Your task to perform on an android device: toggle wifi Image 0: 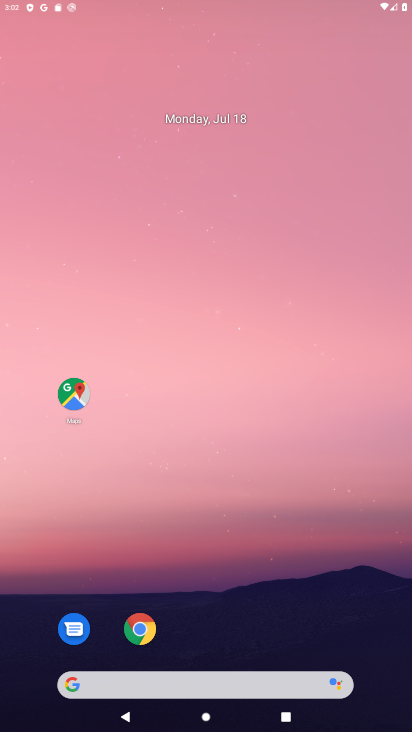
Step 0: press home button
Your task to perform on an android device: toggle wifi Image 1: 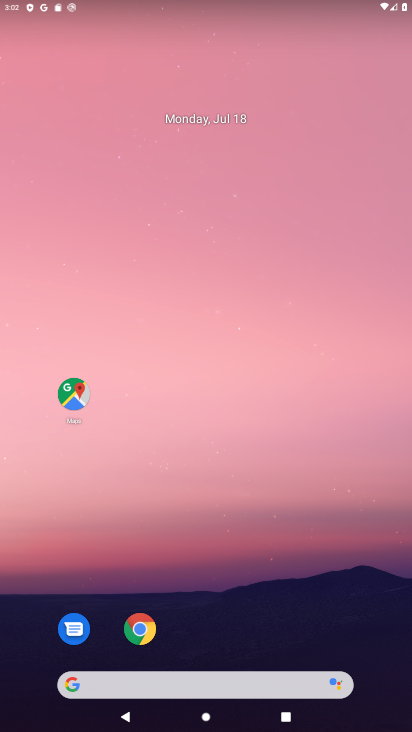
Step 1: drag from (203, 656) to (188, 116)
Your task to perform on an android device: toggle wifi Image 2: 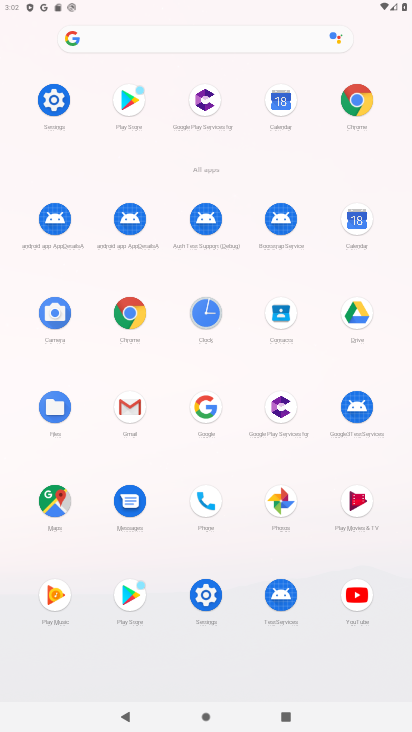
Step 2: click (49, 90)
Your task to perform on an android device: toggle wifi Image 3: 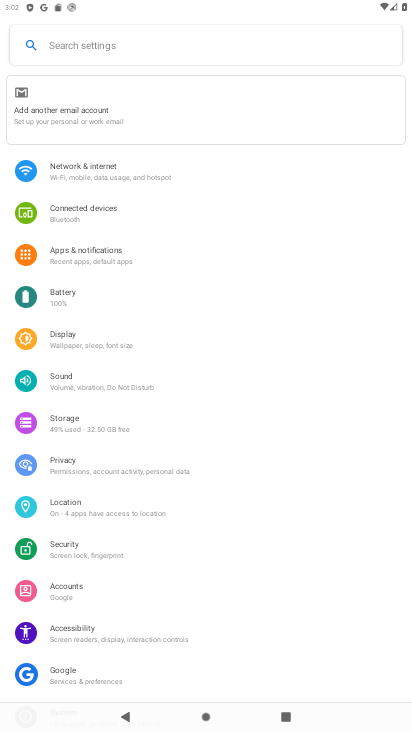
Step 3: click (113, 170)
Your task to perform on an android device: toggle wifi Image 4: 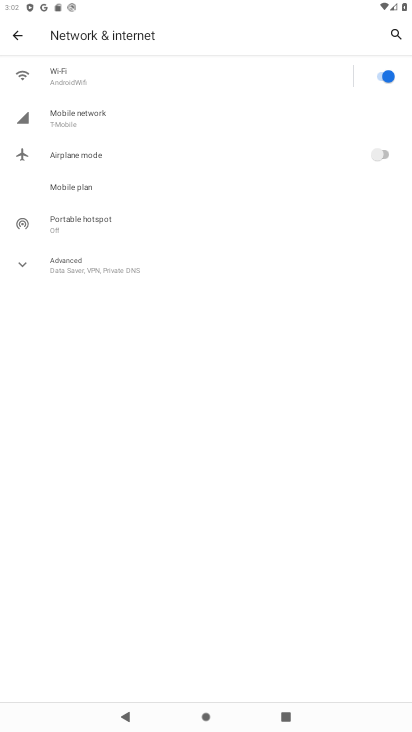
Step 4: click (377, 79)
Your task to perform on an android device: toggle wifi Image 5: 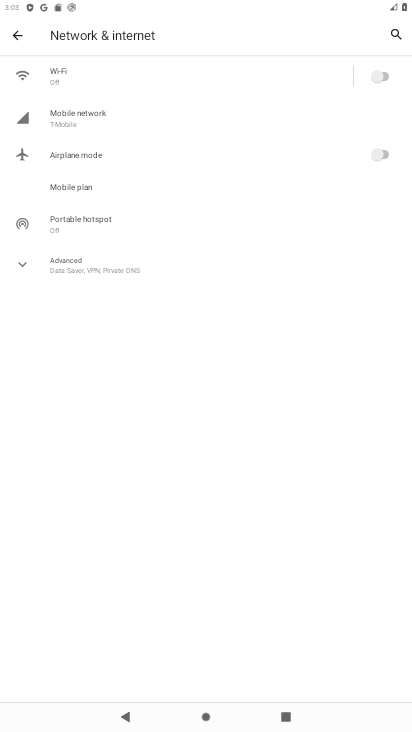
Step 5: task complete